Your task to perform on an android device: turn notification dots on Image 0: 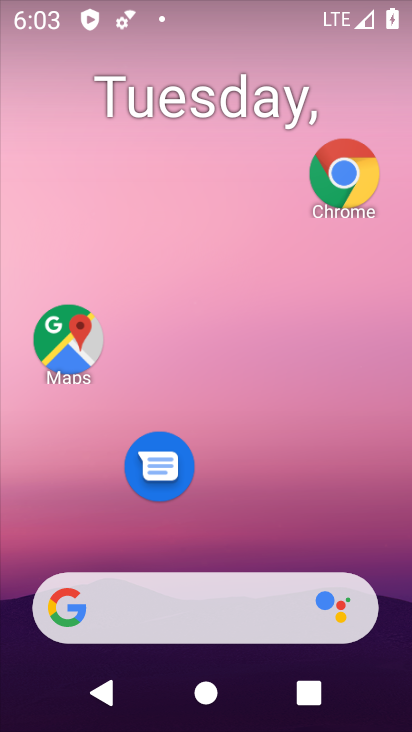
Step 0: drag from (323, 518) to (358, 11)
Your task to perform on an android device: turn notification dots on Image 1: 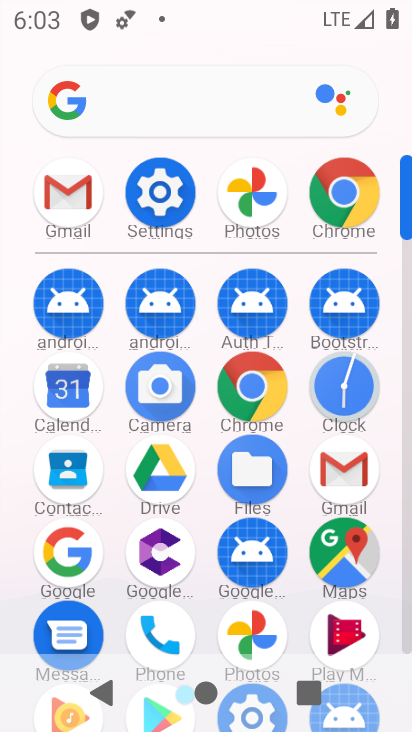
Step 1: click (179, 185)
Your task to perform on an android device: turn notification dots on Image 2: 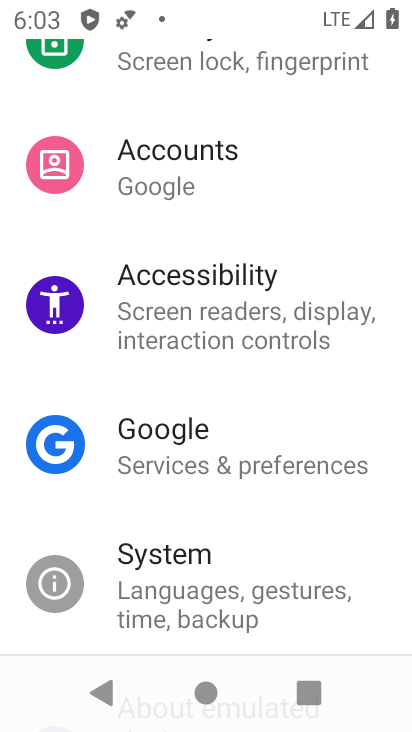
Step 2: drag from (239, 470) to (241, 212)
Your task to perform on an android device: turn notification dots on Image 3: 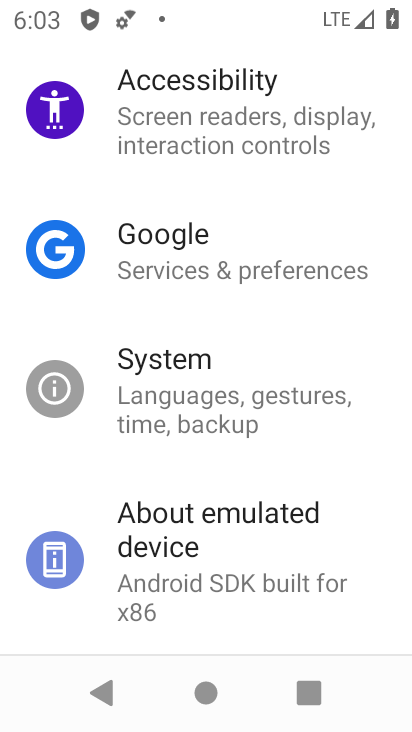
Step 3: drag from (256, 320) to (260, 559)
Your task to perform on an android device: turn notification dots on Image 4: 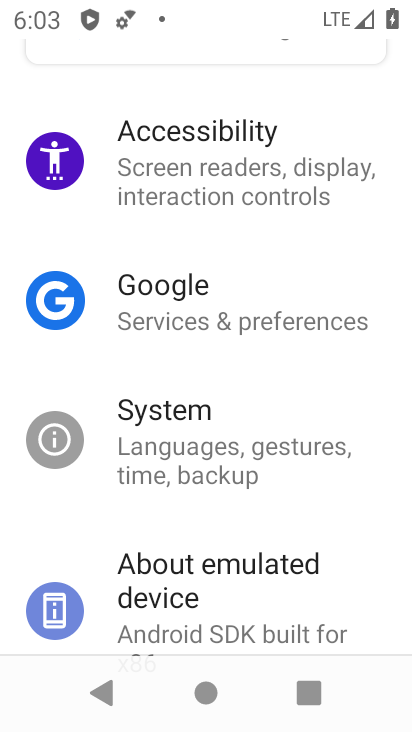
Step 4: drag from (269, 215) to (241, 728)
Your task to perform on an android device: turn notification dots on Image 5: 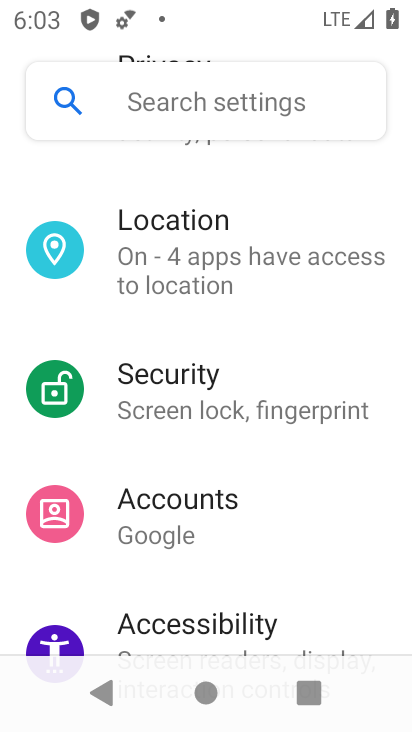
Step 5: drag from (251, 225) to (275, 645)
Your task to perform on an android device: turn notification dots on Image 6: 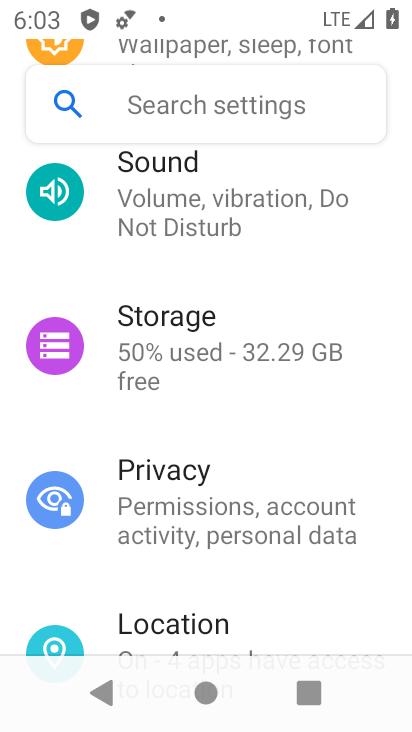
Step 6: drag from (287, 290) to (280, 729)
Your task to perform on an android device: turn notification dots on Image 7: 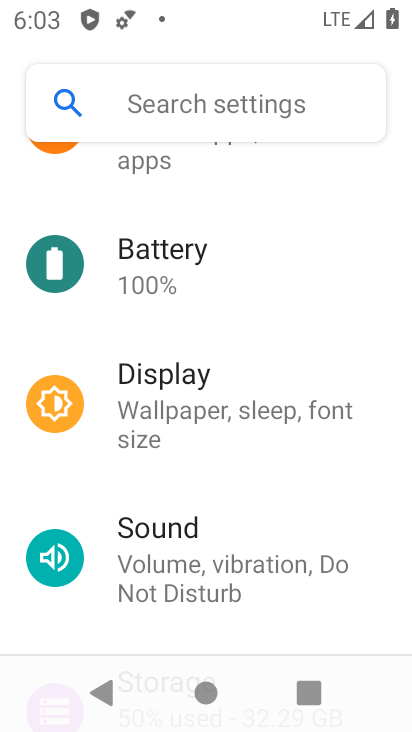
Step 7: drag from (261, 279) to (261, 507)
Your task to perform on an android device: turn notification dots on Image 8: 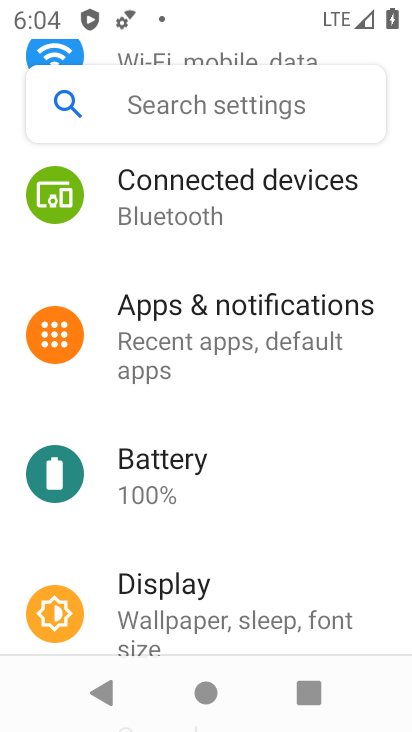
Step 8: click (215, 331)
Your task to perform on an android device: turn notification dots on Image 9: 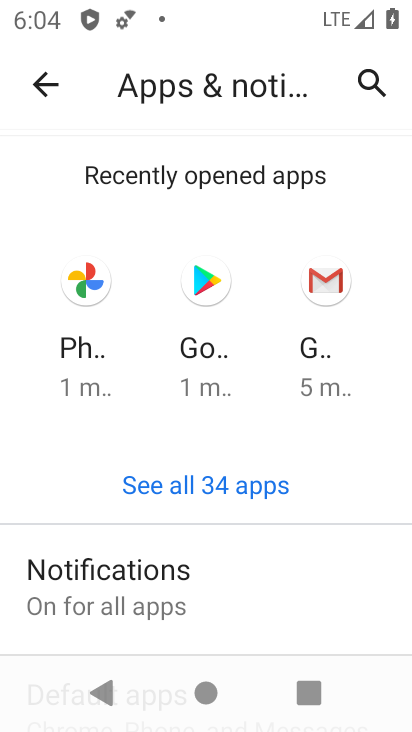
Step 9: click (178, 564)
Your task to perform on an android device: turn notification dots on Image 10: 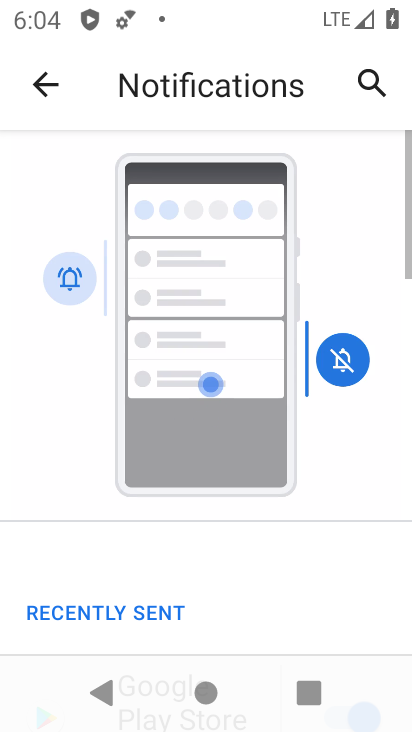
Step 10: drag from (178, 564) to (174, 191)
Your task to perform on an android device: turn notification dots on Image 11: 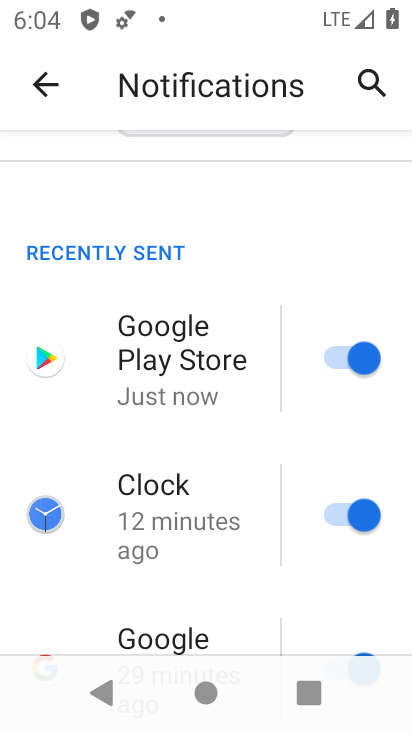
Step 11: drag from (241, 468) to (252, 174)
Your task to perform on an android device: turn notification dots on Image 12: 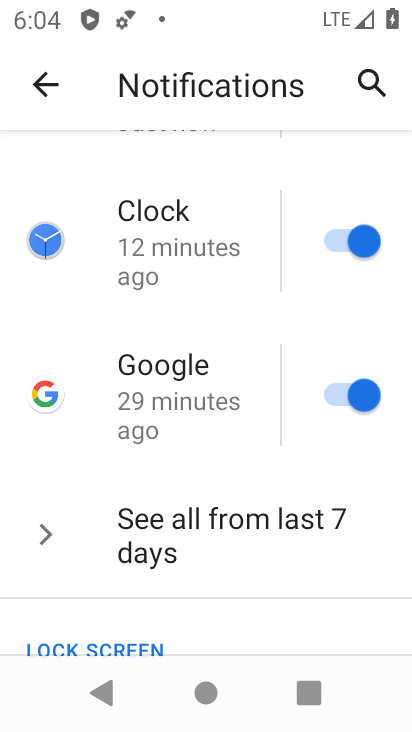
Step 12: drag from (253, 554) to (262, 237)
Your task to perform on an android device: turn notification dots on Image 13: 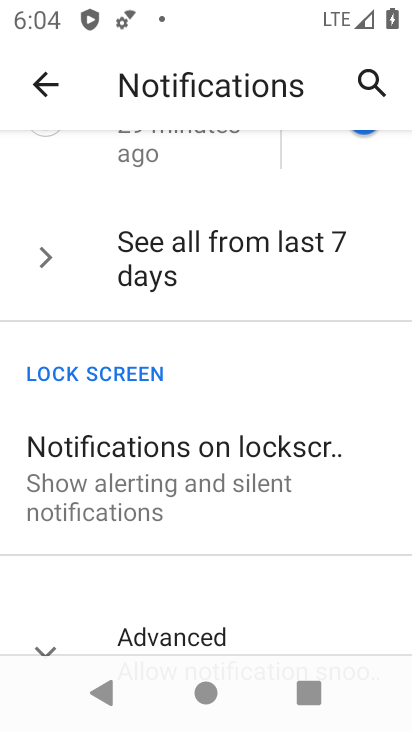
Step 13: drag from (276, 484) to (276, 330)
Your task to perform on an android device: turn notification dots on Image 14: 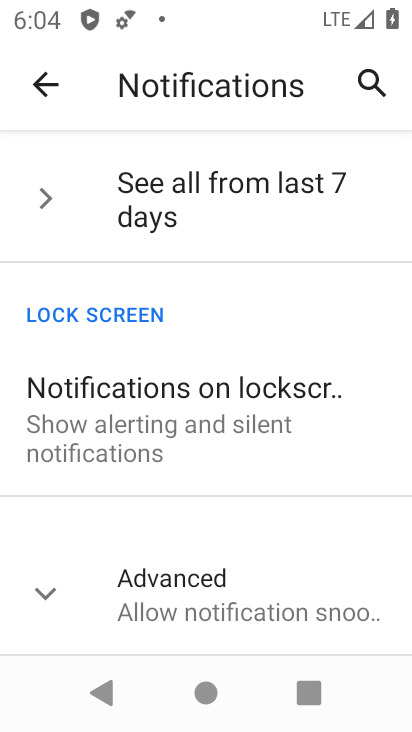
Step 14: click (192, 568)
Your task to perform on an android device: turn notification dots on Image 15: 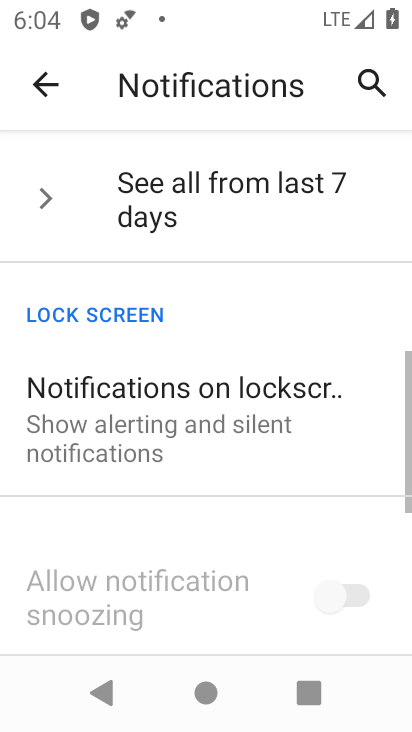
Step 15: task complete